Your task to perform on an android device: turn off picture-in-picture Image 0: 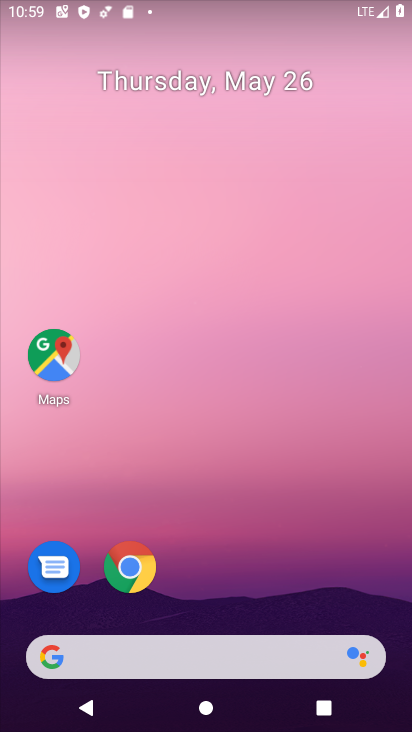
Step 0: click (140, 554)
Your task to perform on an android device: turn off picture-in-picture Image 1: 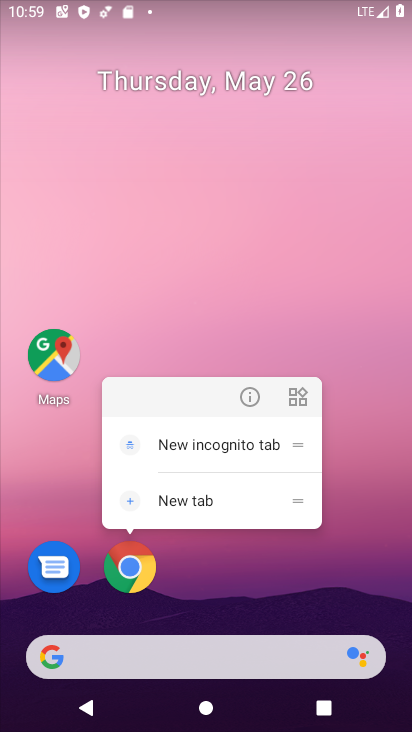
Step 1: click (253, 396)
Your task to perform on an android device: turn off picture-in-picture Image 2: 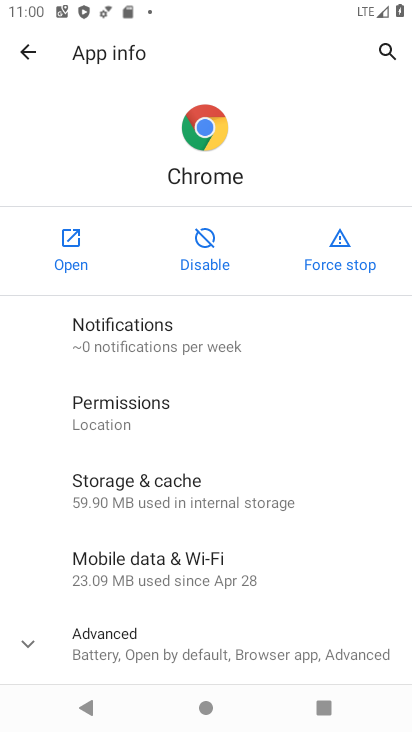
Step 2: click (217, 656)
Your task to perform on an android device: turn off picture-in-picture Image 3: 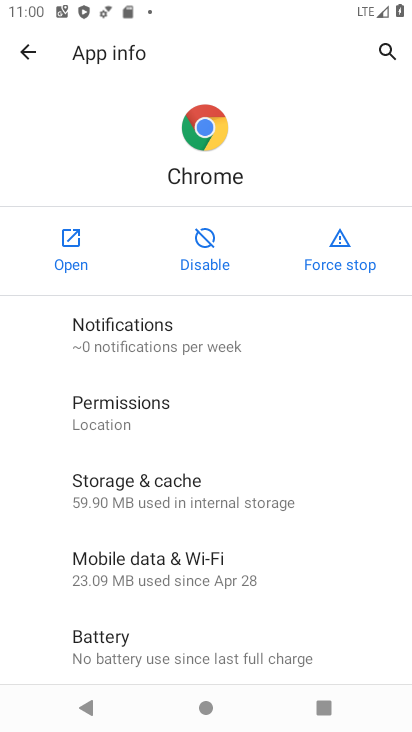
Step 3: drag from (219, 629) to (221, 100)
Your task to perform on an android device: turn off picture-in-picture Image 4: 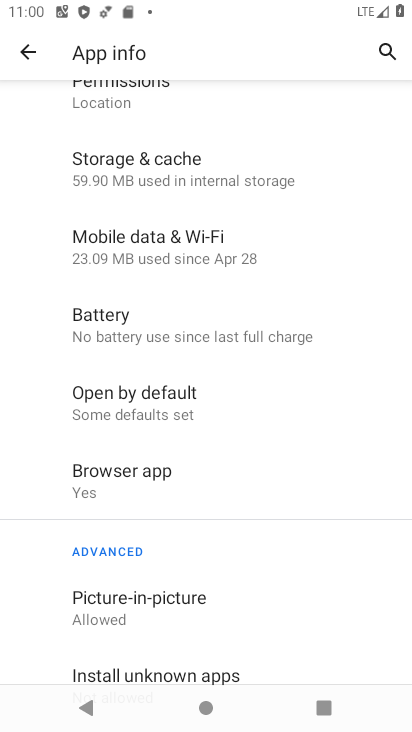
Step 4: click (195, 608)
Your task to perform on an android device: turn off picture-in-picture Image 5: 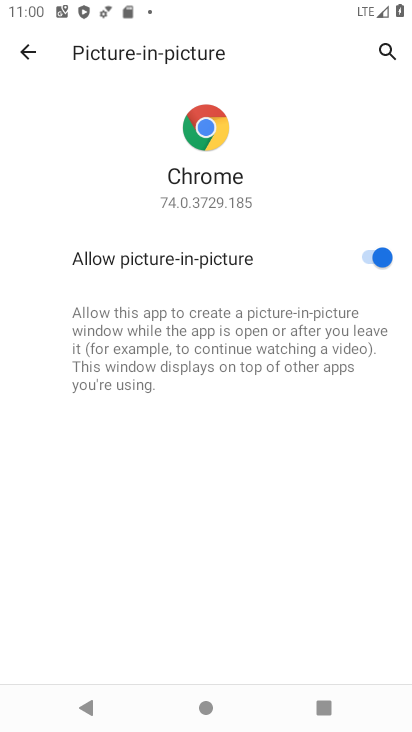
Step 5: click (380, 247)
Your task to perform on an android device: turn off picture-in-picture Image 6: 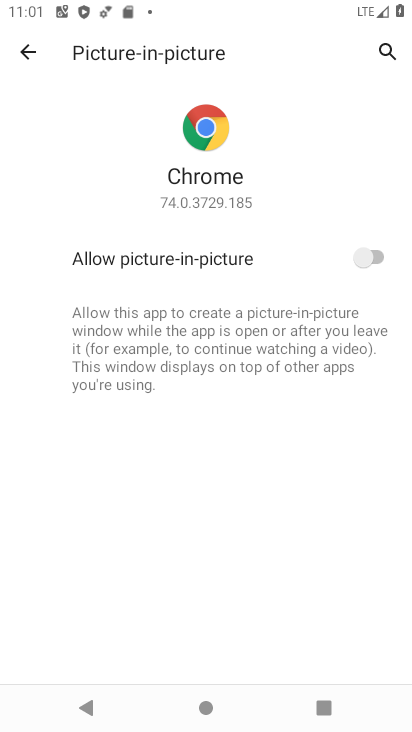
Step 6: task complete